Your task to perform on an android device: Open wifi settings Image 0: 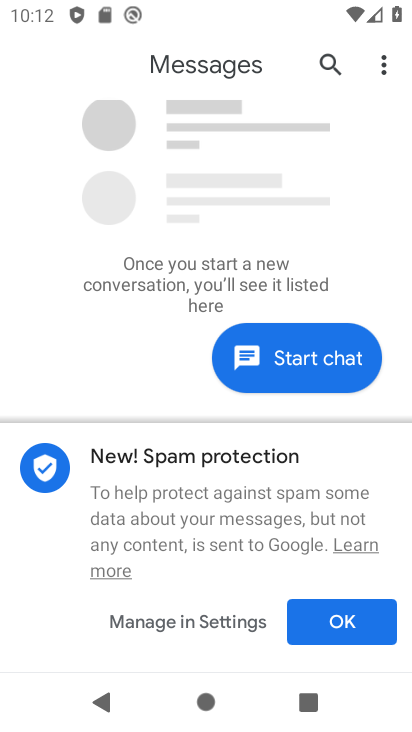
Step 0: press home button
Your task to perform on an android device: Open wifi settings Image 1: 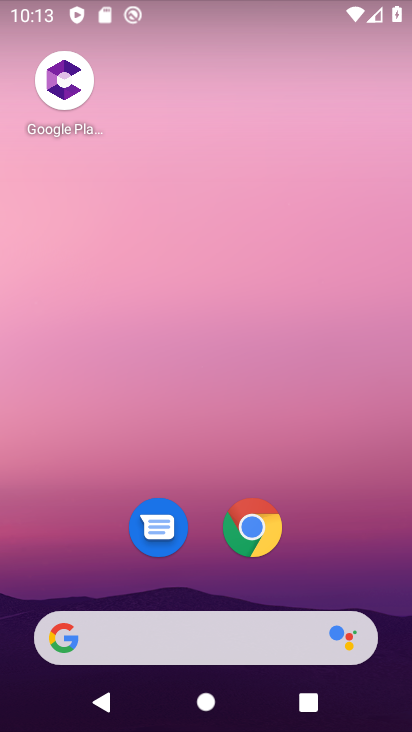
Step 1: drag from (324, 562) to (301, 103)
Your task to perform on an android device: Open wifi settings Image 2: 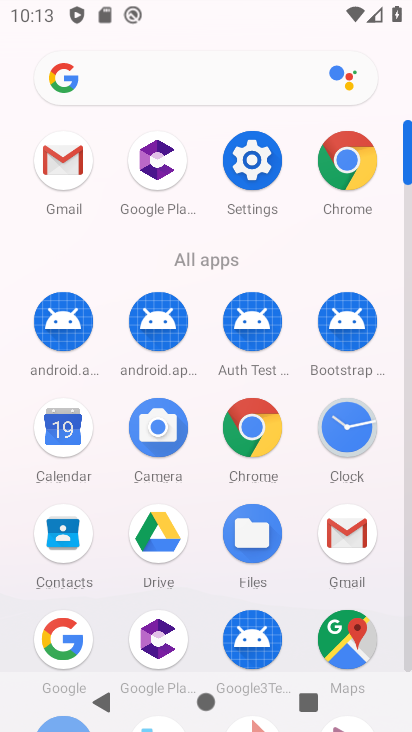
Step 2: click (243, 174)
Your task to perform on an android device: Open wifi settings Image 3: 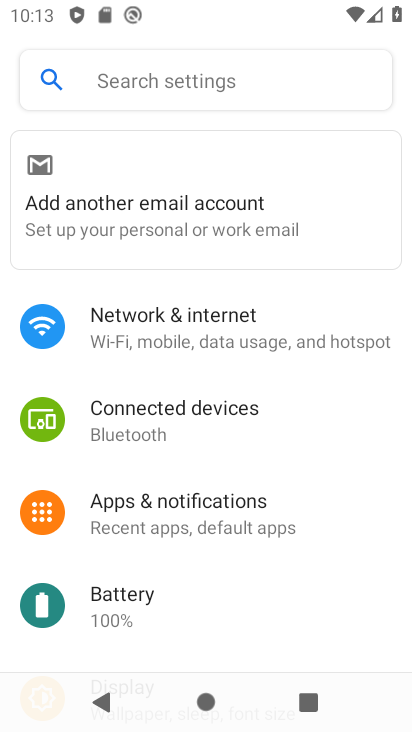
Step 3: click (217, 339)
Your task to perform on an android device: Open wifi settings Image 4: 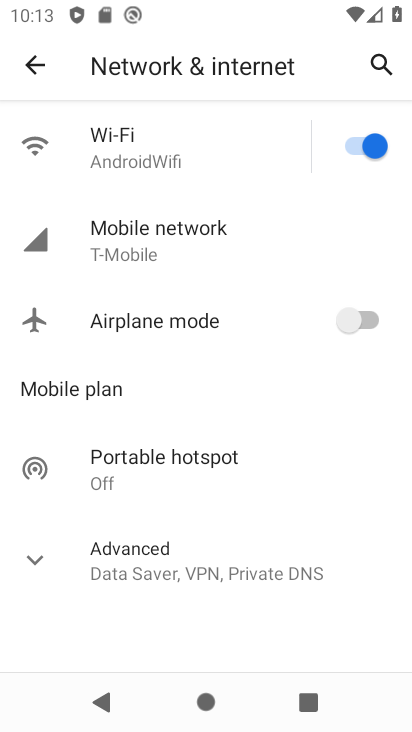
Step 4: click (162, 164)
Your task to perform on an android device: Open wifi settings Image 5: 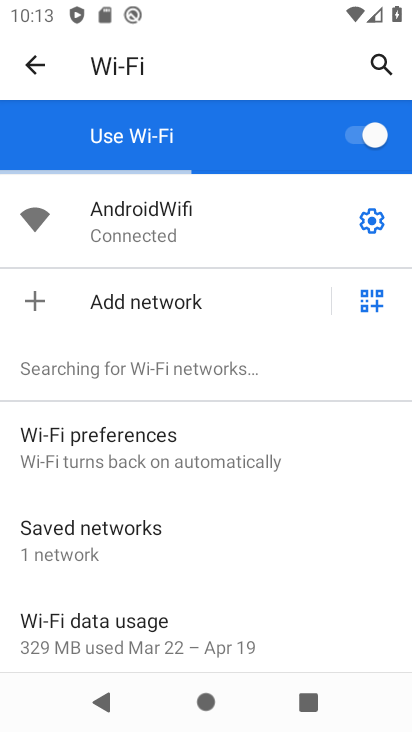
Step 5: task complete